Your task to perform on an android device: Open battery settings Image 0: 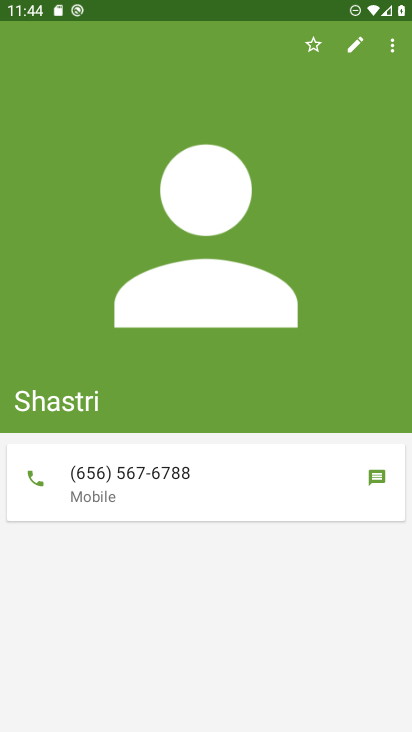
Step 0: press home button
Your task to perform on an android device: Open battery settings Image 1: 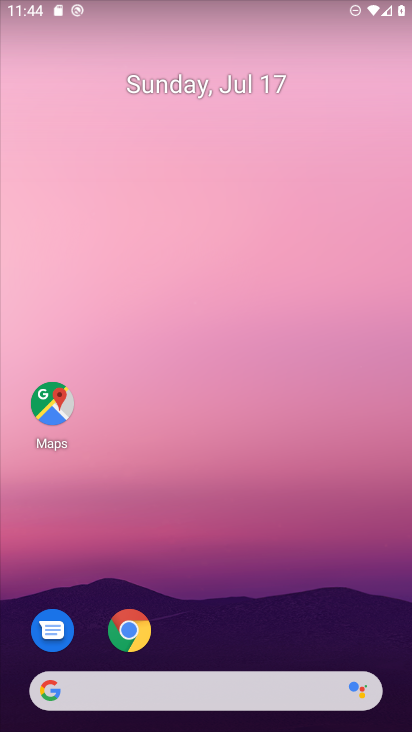
Step 1: drag from (198, 461) to (252, 0)
Your task to perform on an android device: Open battery settings Image 2: 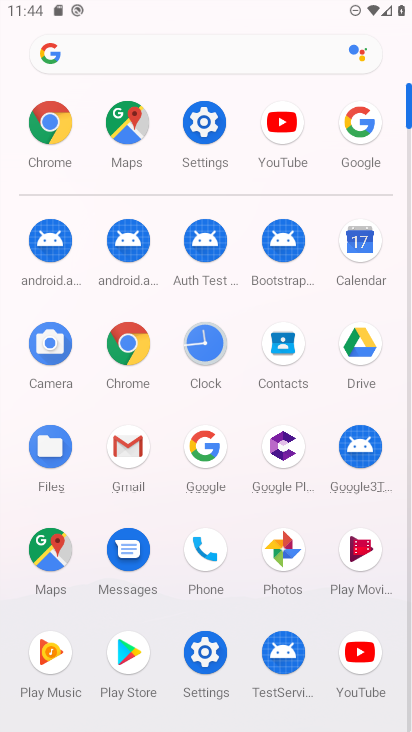
Step 2: click (199, 123)
Your task to perform on an android device: Open battery settings Image 3: 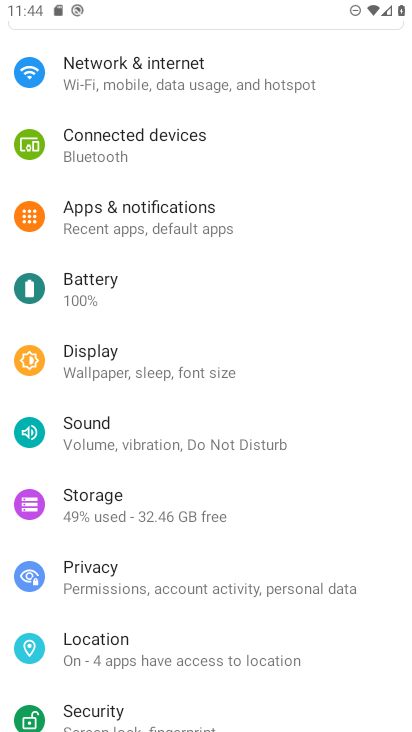
Step 3: click (100, 288)
Your task to perform on an android device: Open battery settings Image 4: 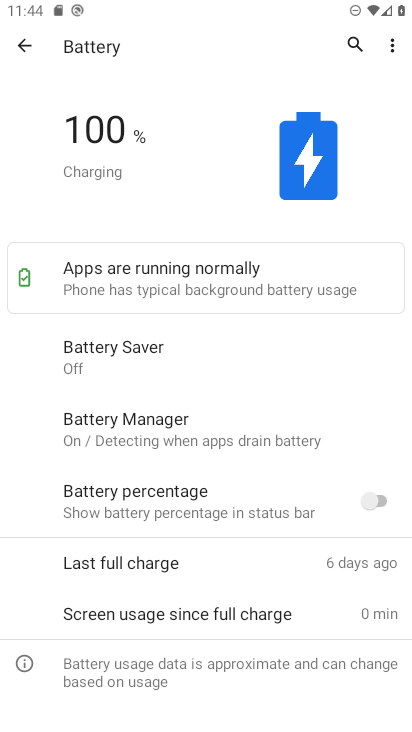
Step 4: task complete